Your task to perform on an android device: Open Android settings Image 0: 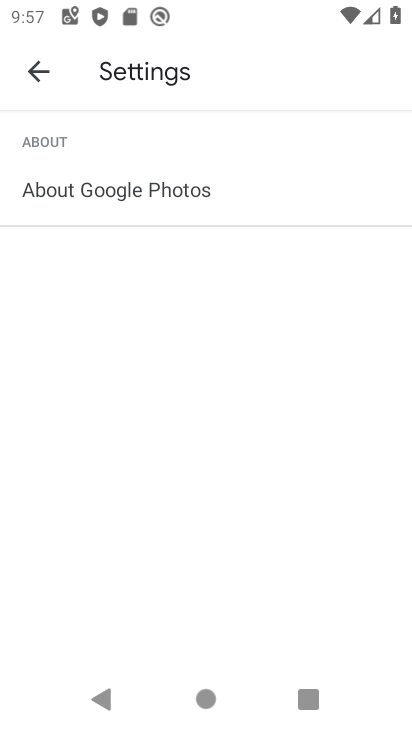
Step 0: press home button
Your task to perform on an android device: Open Android settings Image 1: 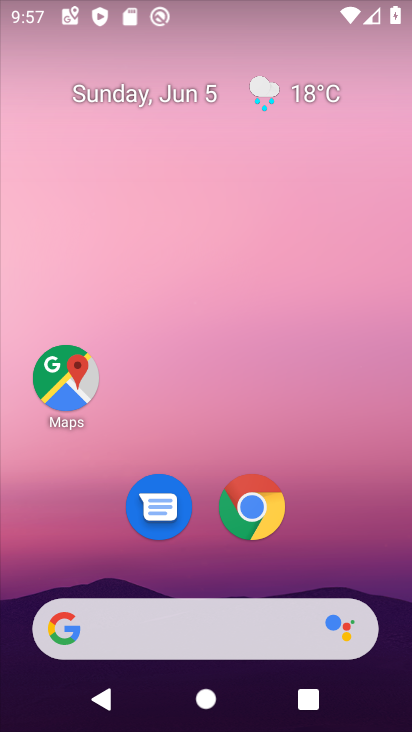
Step 1: drag from (208, 537) to (301, 3)
Your task to perform on an android device: Open Android settings Image 2: 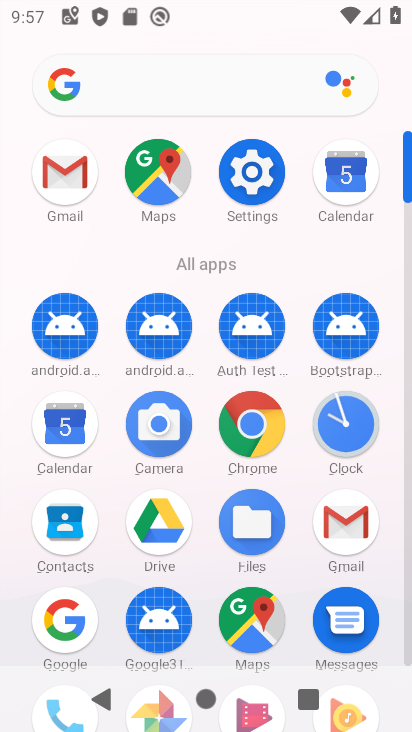
Step 2: click (240, 179)
Your task to perform on an android device: Open Android settings Image 3: 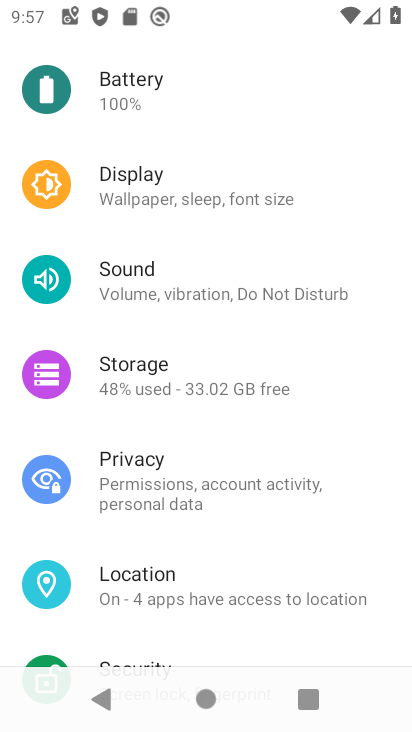
Step 3: drag from (230, 205) to (176, 624)
Your task to perform on an android device: Open Android settings Image 4: 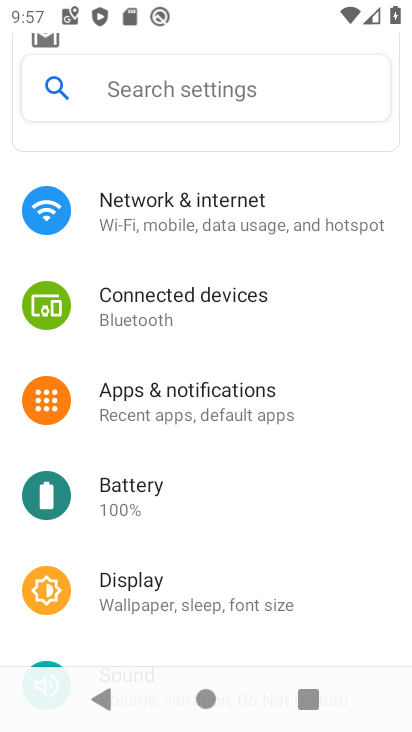
Step 4: drag from (203, 555) to (246, 263)
Your task to perform on an android device: Open Android settings Image 5: 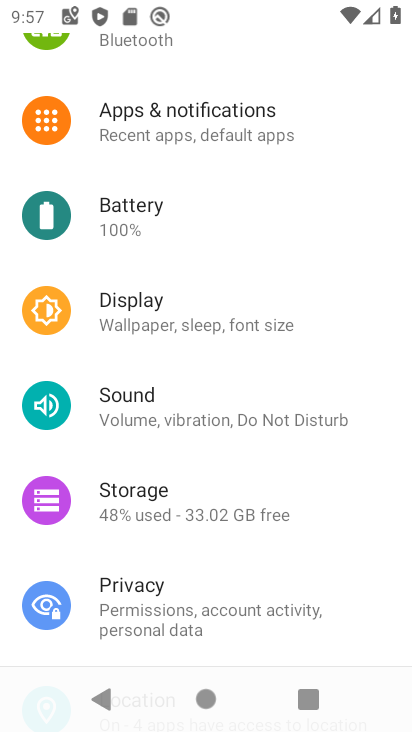
Step 5: drag from (154, 548) to (230, 78)
Your task to perform on an android device: Open Android settings Image 6: 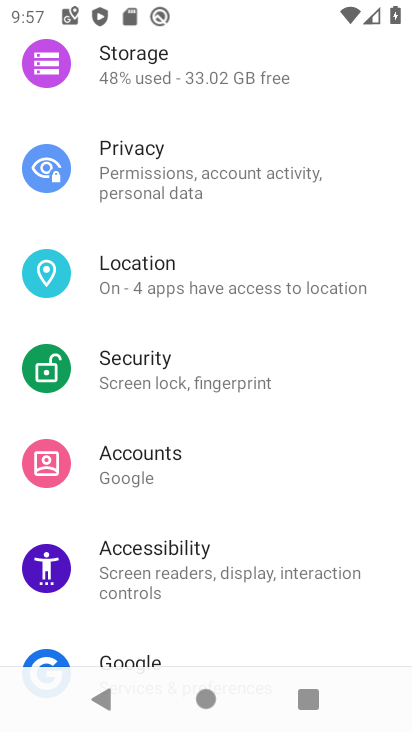
Step 6: drag from (170, 605) to (249, 139)
Your task to perform on an android device: Open Android settings Image 7: 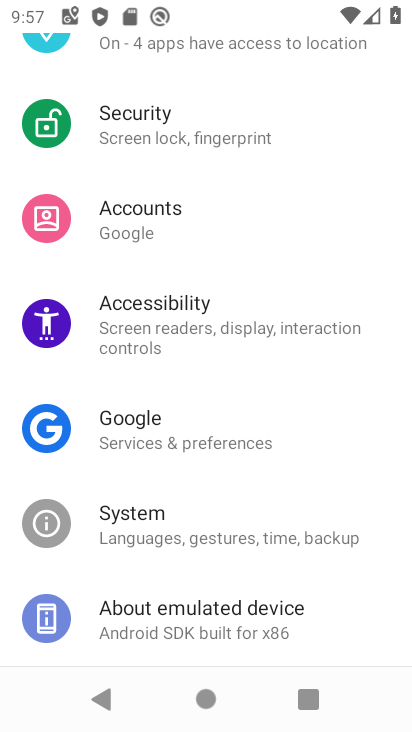
Step 7: click (177, 627)
Your task to perform on an android device: Open Android settings Image 8: 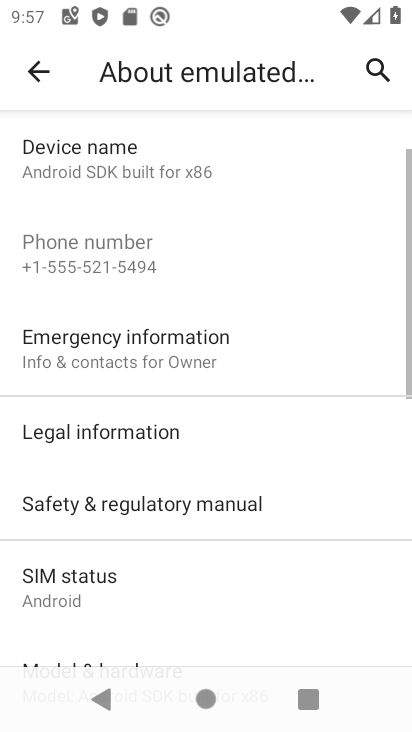
Step 8: task complete